Your task to perform on an android device: turn off sleep mode Image 0: 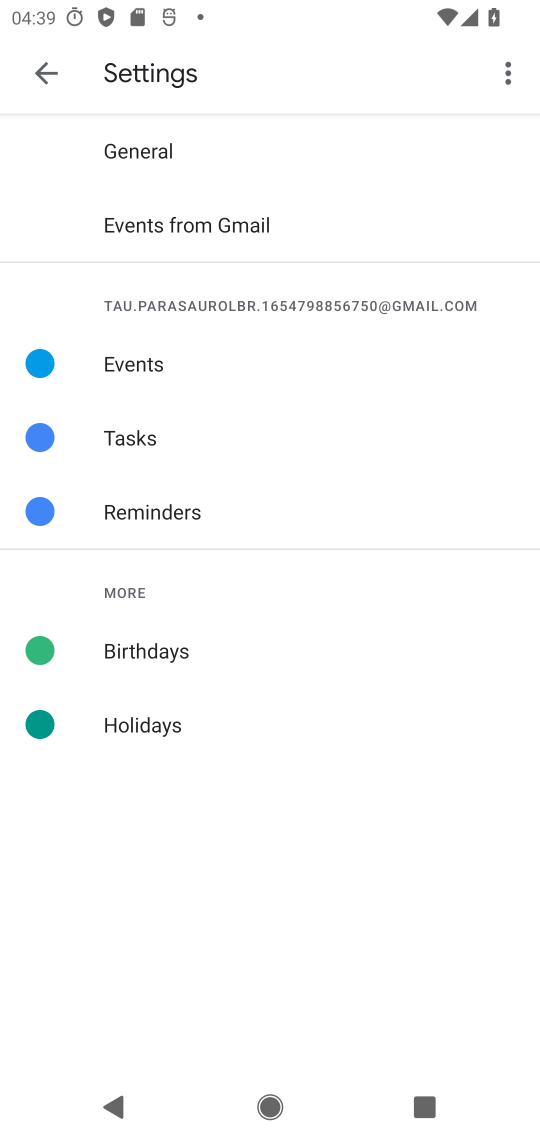
Step 0: press home button
Your task to perform on an android device: turn off sleep mode Image 1: 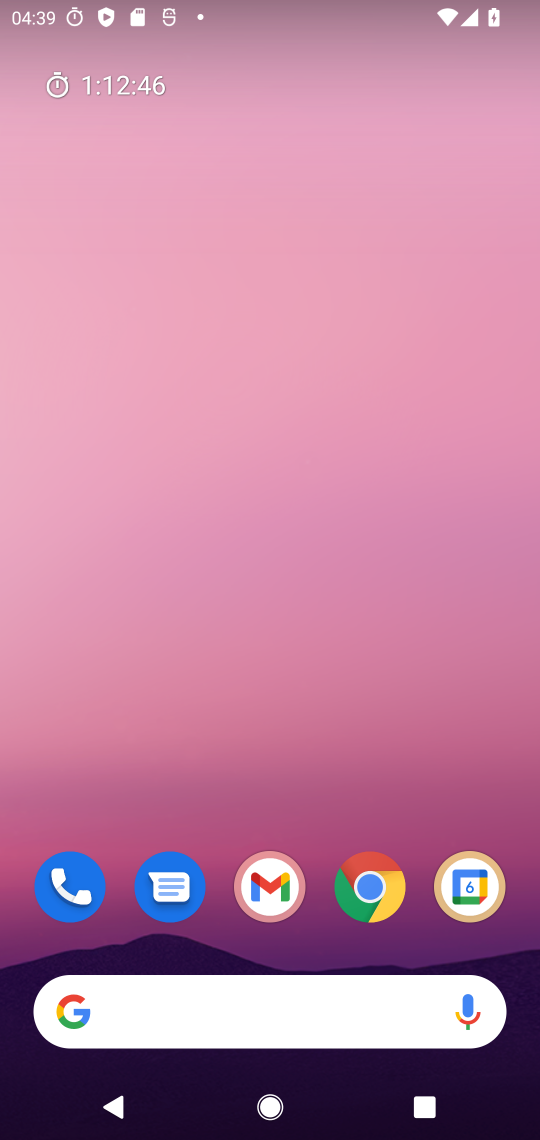
Step 1: drag from (404, 832) to (427, 332)
Your task to perform on an android device: turn off sleep mode Image 2: 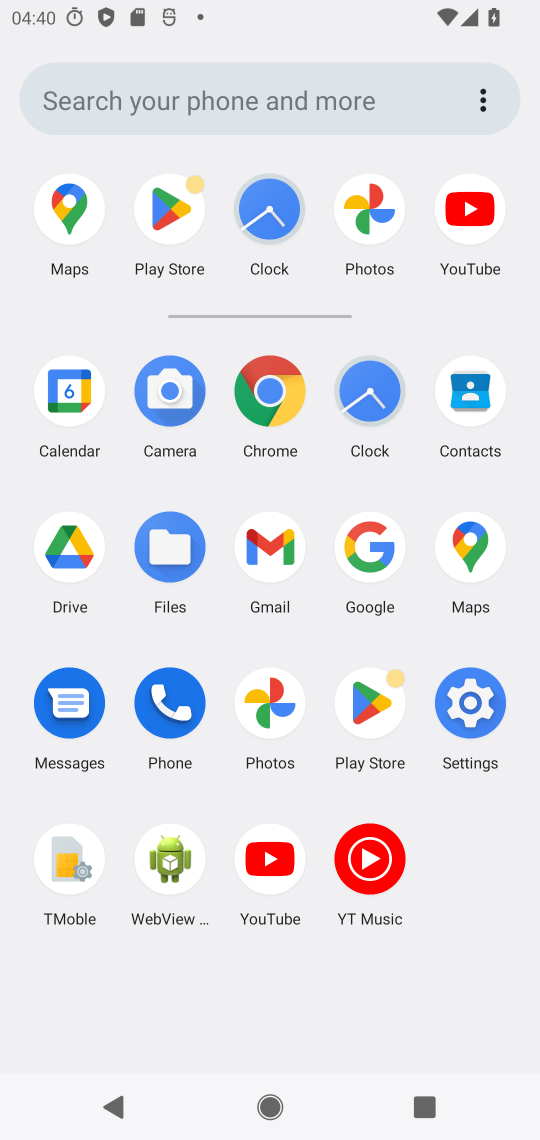
Step 2: click (468, 700)
Your task to perform on an android device: turn off sleep mode Image 3: 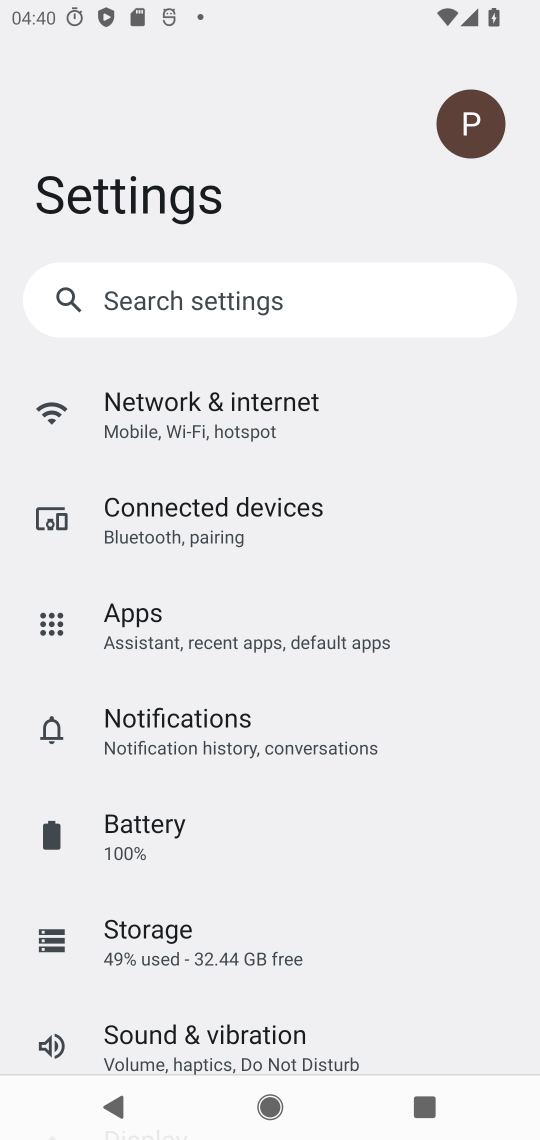
Step 3: drag from (450, 774) to (470, 594)
Your task to perform on an android device: turn off sleep mode Image 4: 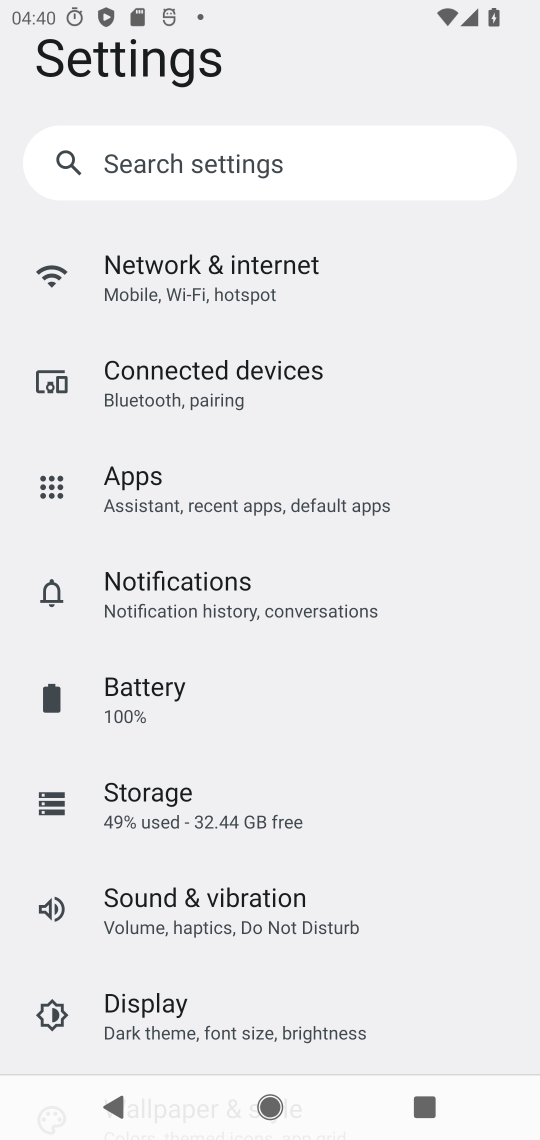
Step 4: drag from (452, 788) to (453, 603)
Your task to perform on an android device: turn off sleep mode Image 5: 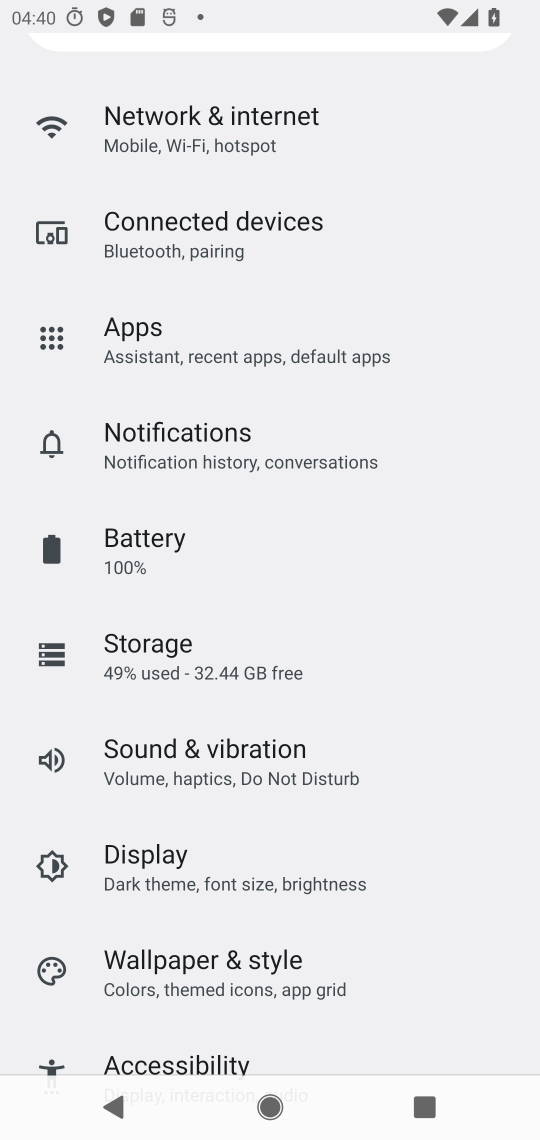
Step 5: drag from (418, 812) to (427, 625)
Your task to perform on an android device: turn off sleep mode Image 6: 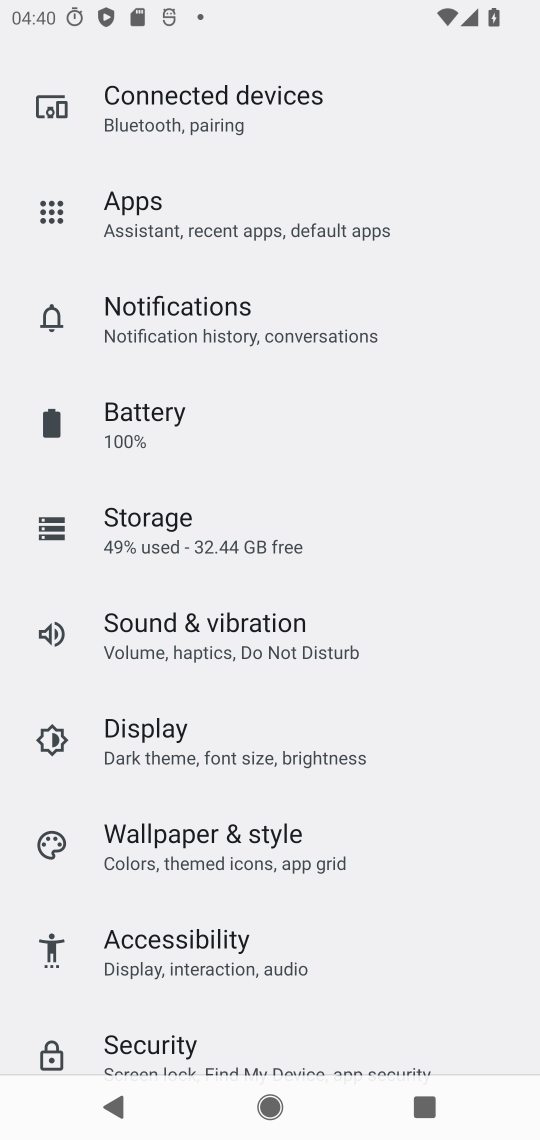
Step 6: drag from (419, 822) to (451, 630)
Your task to perform on an android device: turn off sleep mode Image 7: 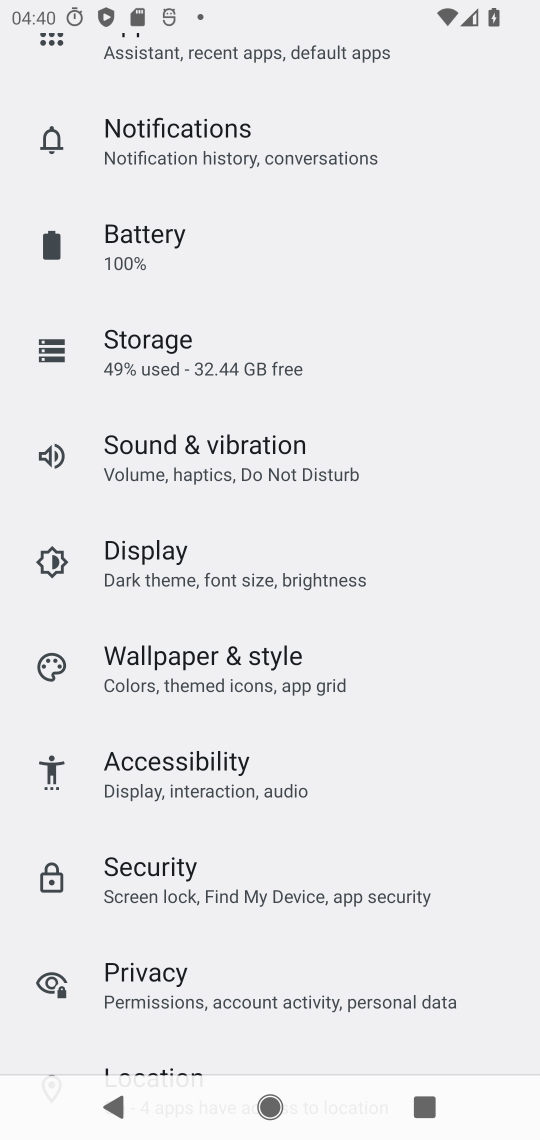
Step 7: drag from (411, 831) to (445, 659)
Your task to perform on an android device: turn off sleep mode Image 8: 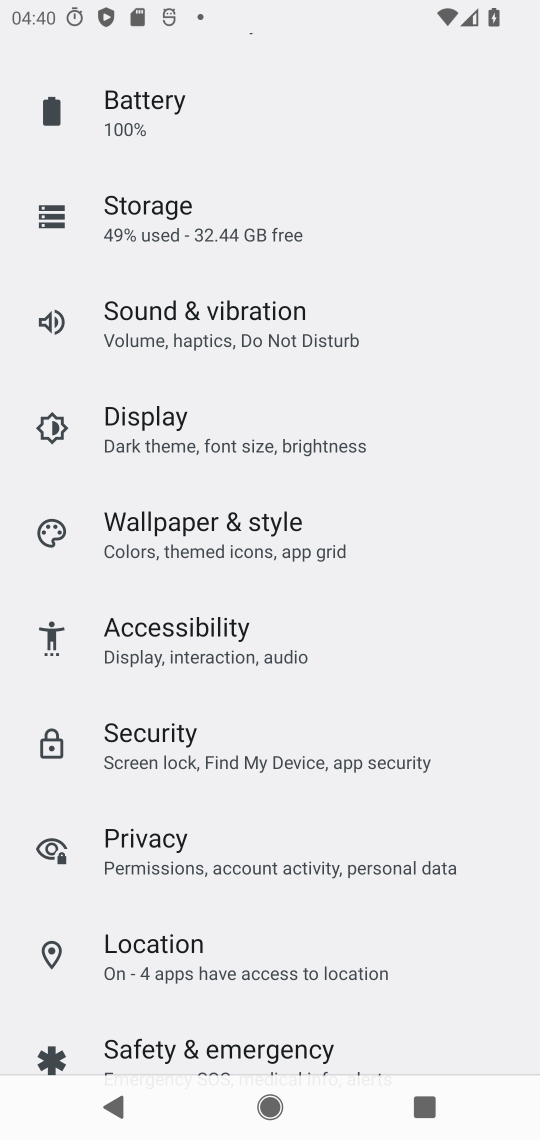
Step 8: drag from (448, 893) to (494, 671)
Your task to perform on an android device: turn off sleep mode Image 9: 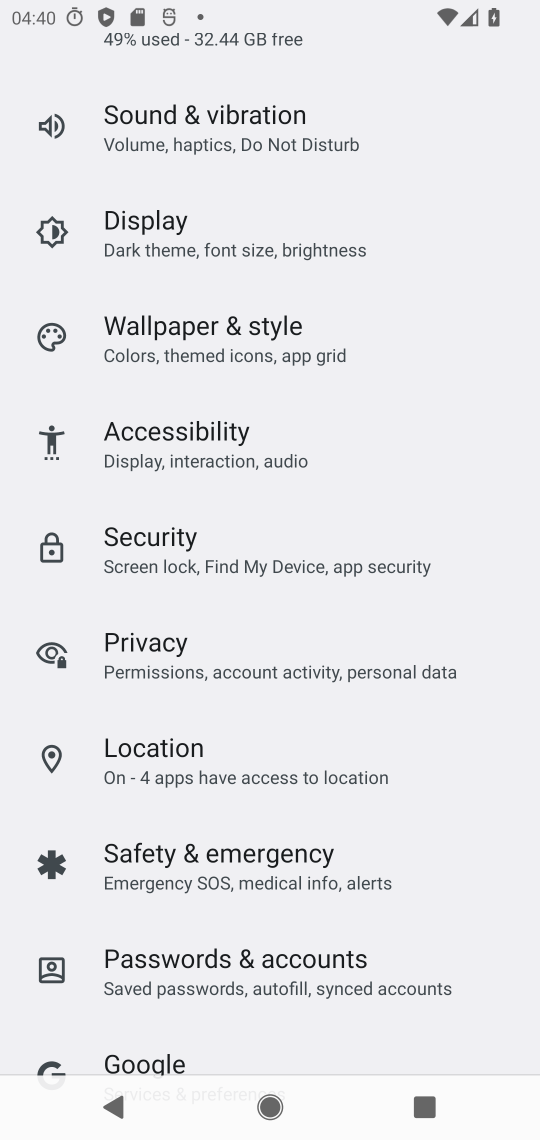
Step 9: drag from (468, 466) to (484, 624)
Your task to perform on an android device: turn off sleep mode Image 10: 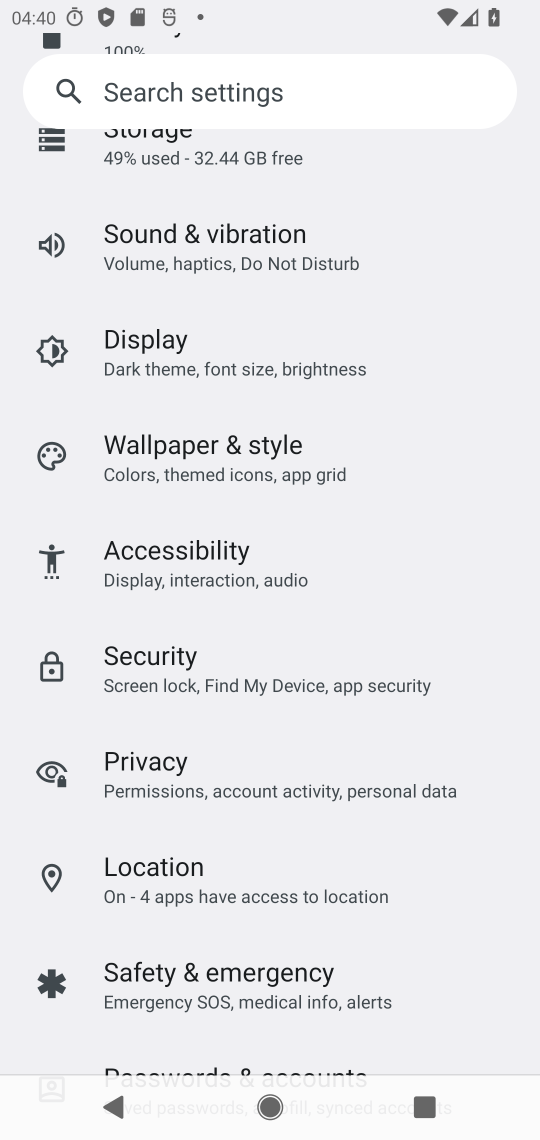
Step 10: drag from (481, 357) to (467, 646)
Your task to perform on an android device: turn off sleep mode Image 11: 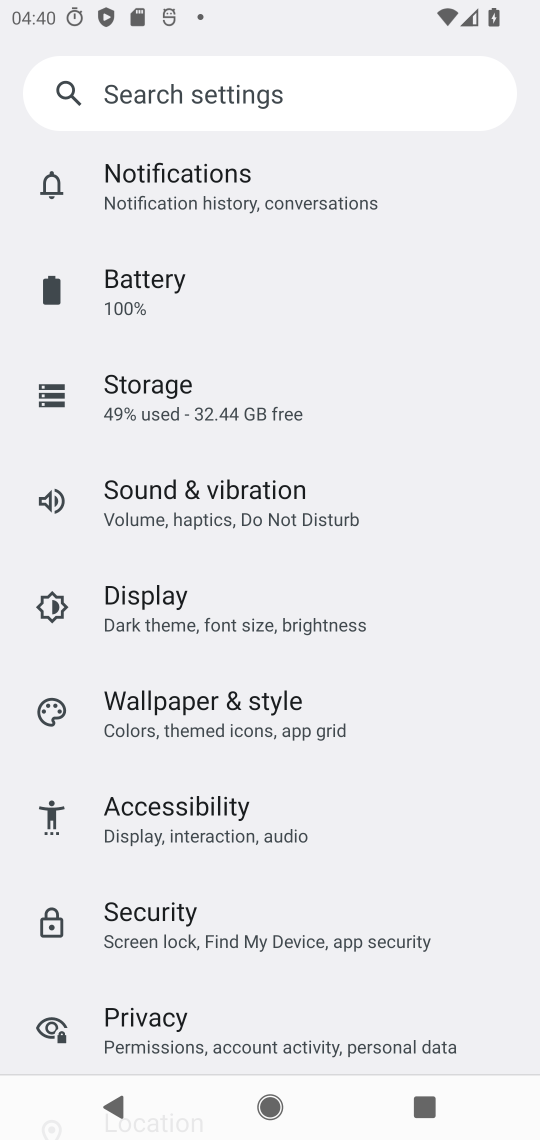
Step 11: drag from (441, 371) to (453, 679)
Your task to perform on an android device: turn off sleep mode Image 12: 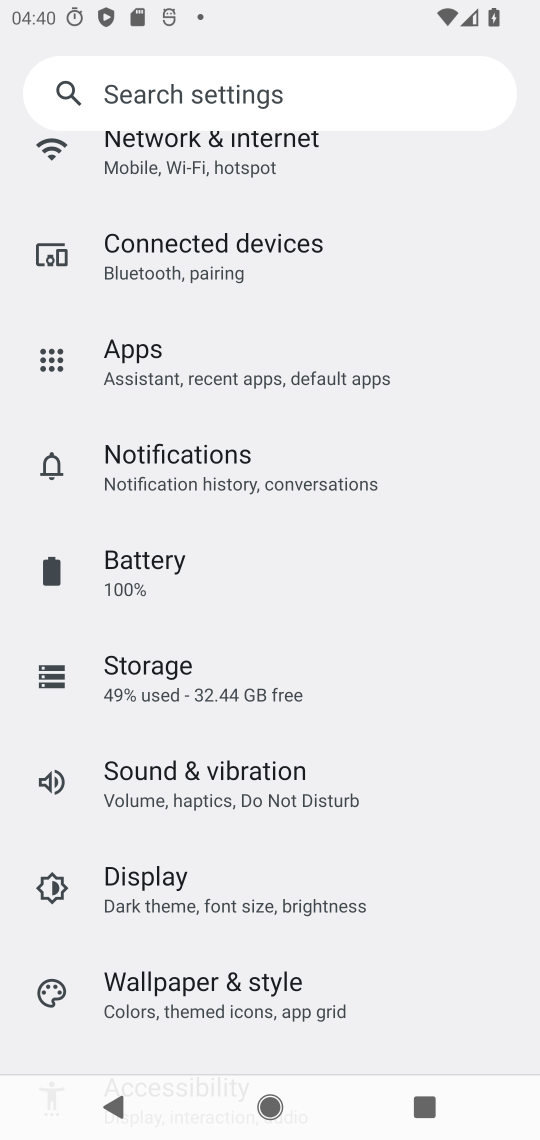
Step 12: click (402, 897)
Your task to perform on an android device: turn off sleep mode Image 13: 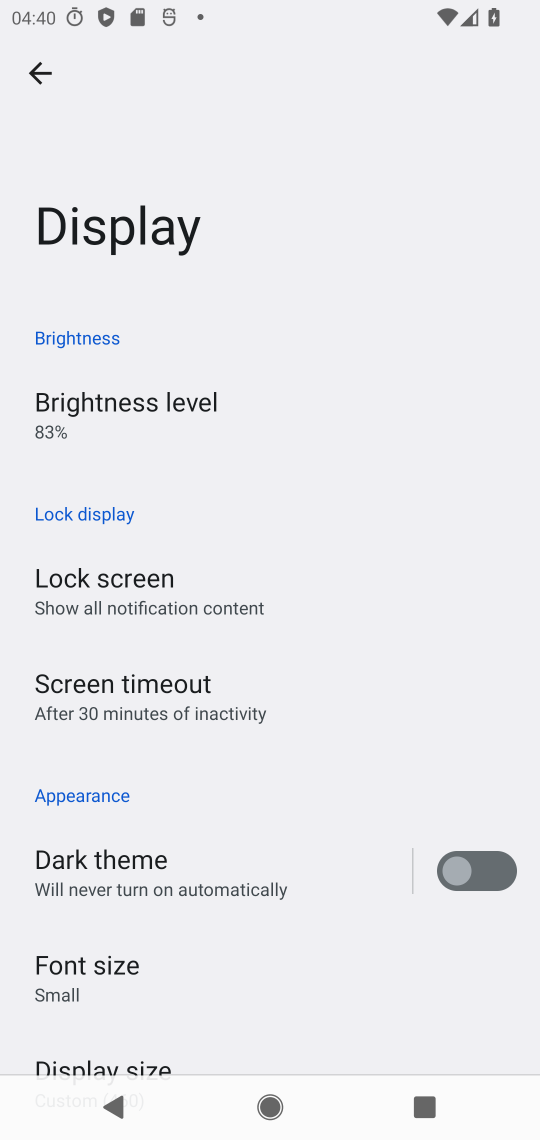
Step 13: task complete